Your task to perform on an android device: turn off sleep mode Image 0: 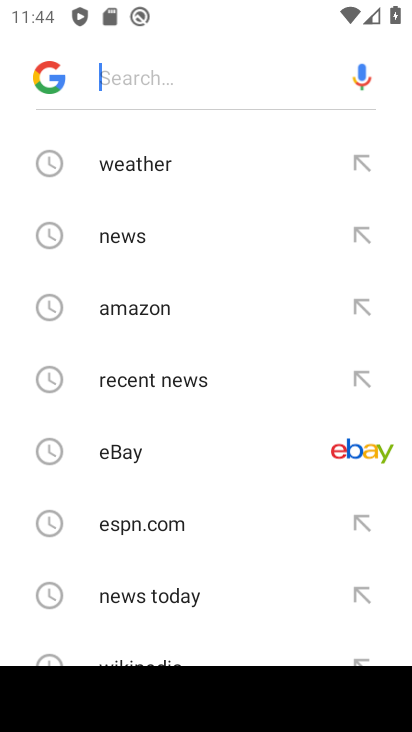
Step 0: press back button
Your task to perform on an android device: turn off sleep mode Image 1: 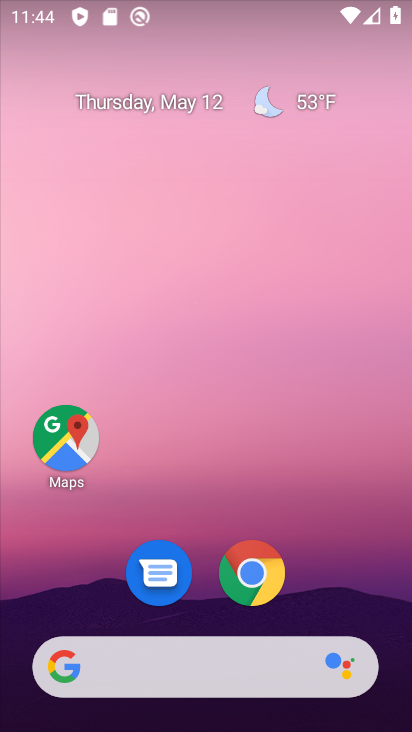
Step 1: drag from (94, 586) to (333, 128)
Your task to perform on an android device: turn off sleep mode Image 2: 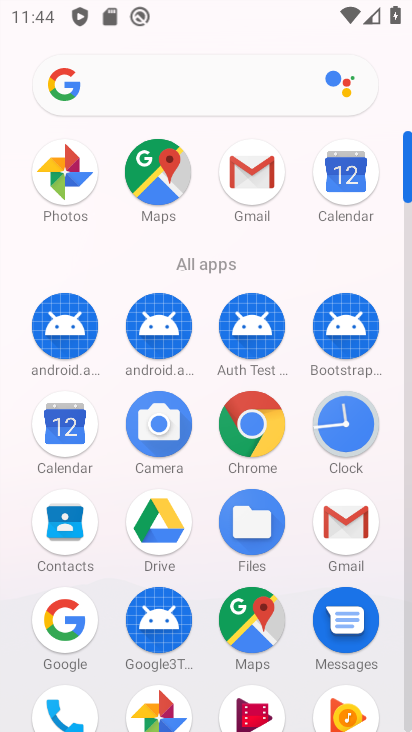
Step 2: drag from (99, 595) to (188, 398)
Your task to perform on an android device: turn off sleep mode Image 3: 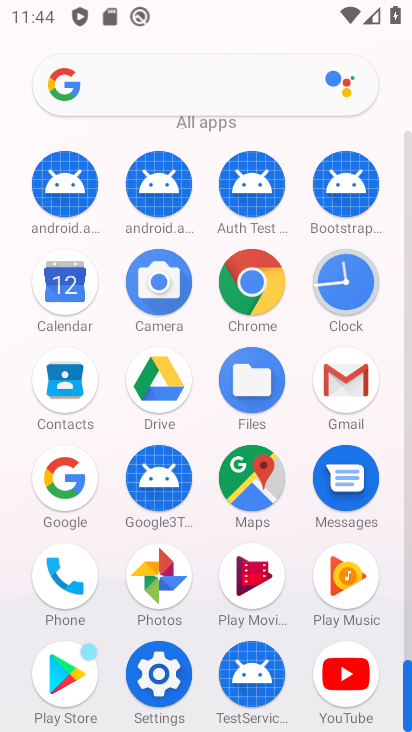
Step 3: click (164, 676)
Your task to perform on an android device: turn off sleep mode Image 4: 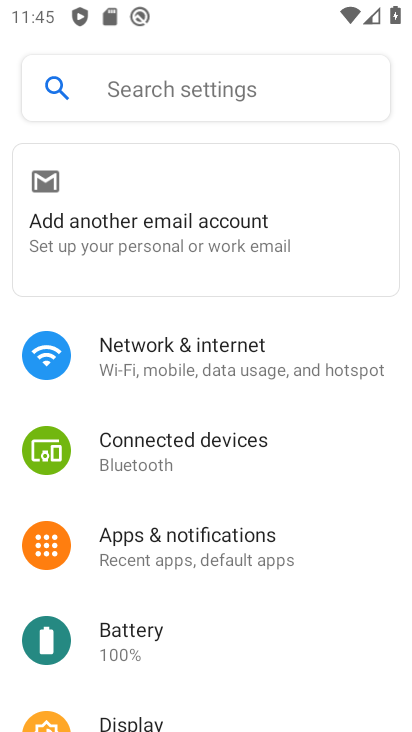
Step 4: drag from (196, 647) to (302, 349)
Your task to perform on an android device: turn off sleep mode Image 5: 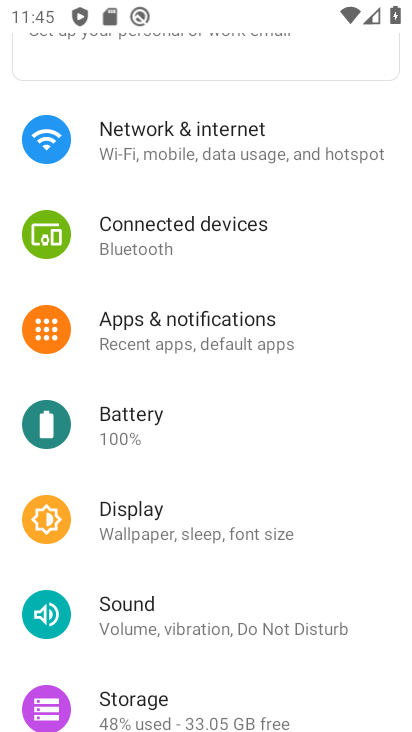
Step 5: click (157, 521)
Your task to perform on an android device: turn off sleep mode Image 6: 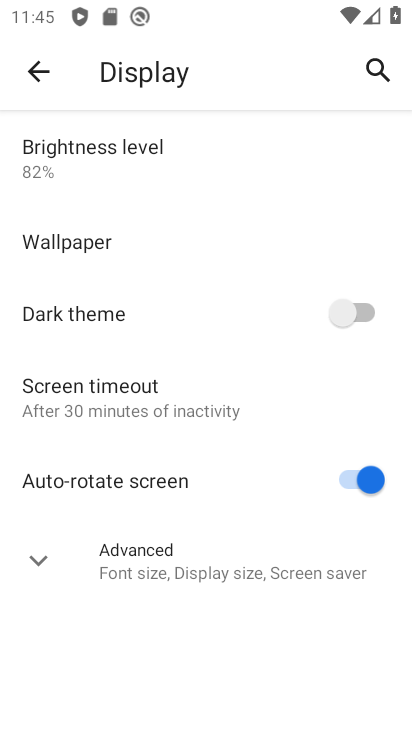
Step 6: click (177, 567)
Your task to perform on an android device: turn off sleep mode Image 7: 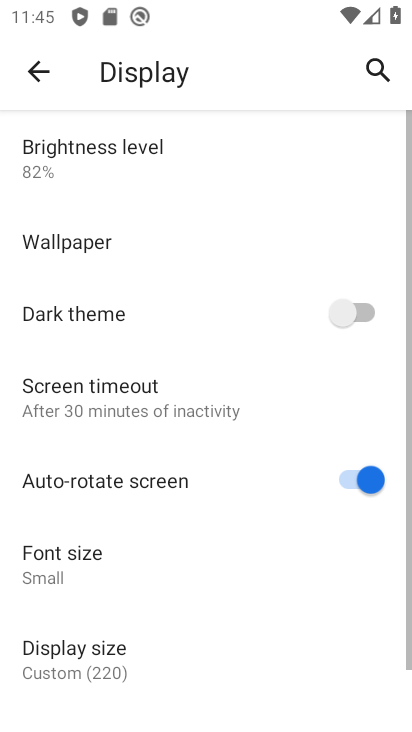
Step 7: task complete